Your task to perform on an android device: turn on notifications settings in the gmail app Image 0: 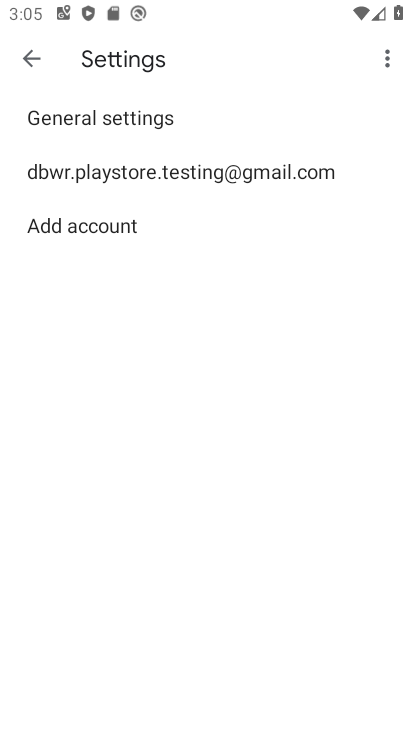
Step 0: press home button
Your task to perform on an android device: turn on notifications settings in the gmail app Image 1: 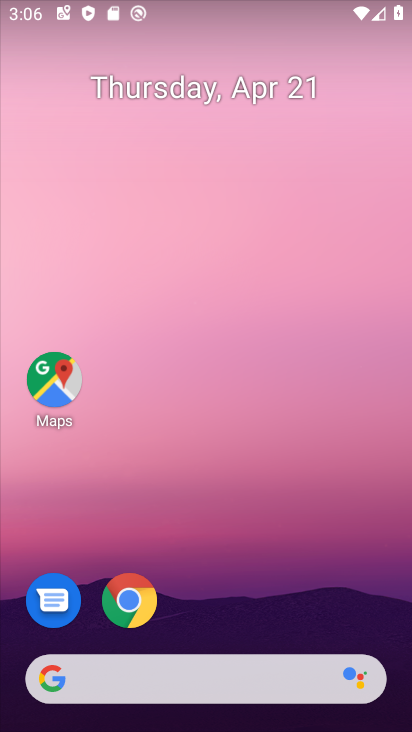
Step 1: drag from (210, 580) to (271, 0)
Your task to perform on an android device: turn on notifications settings in the gmail app Image 2: 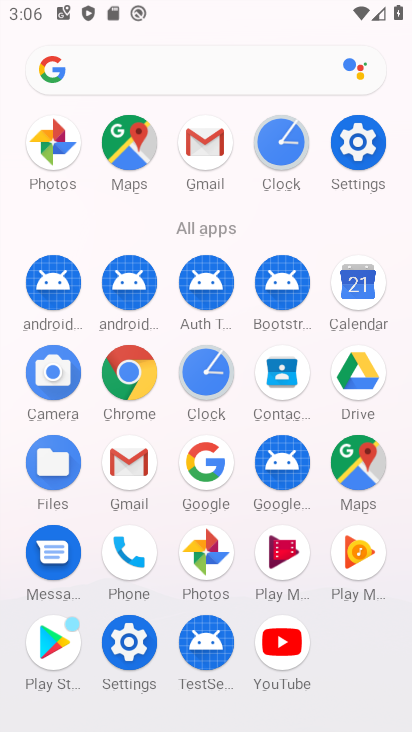
Step 2: click (207, 140)
Your task to perform on an android device: turn on notifications settings in the gmail app Image 3: 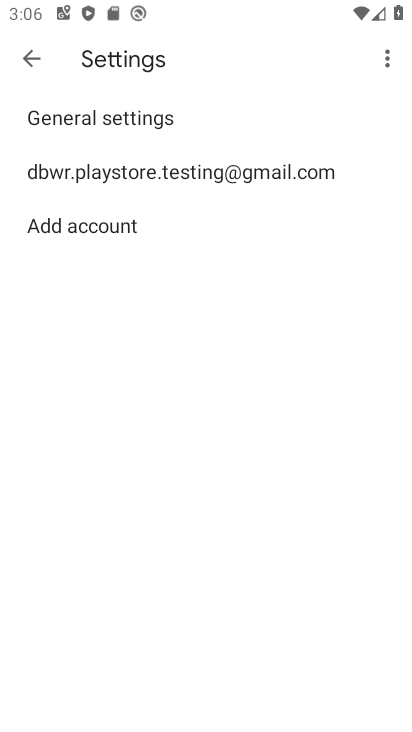
Step 3: click (225, 170)
Your task to perform on an android device: turn on notifications settings in the gmail app Image 4: 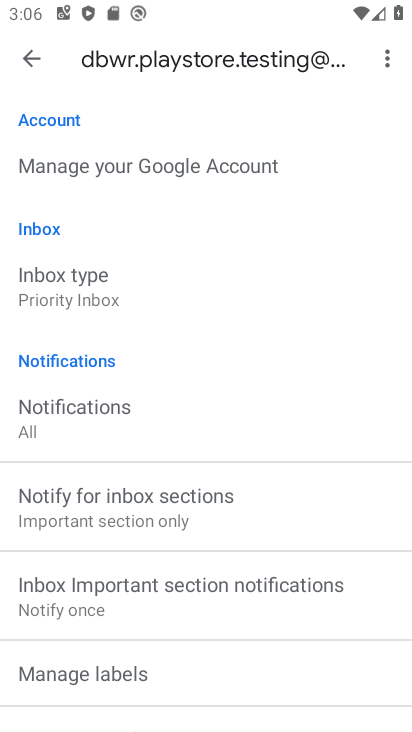
Step 4: drag from (172, 388) to (259, 258)
Your task to perform on an android device: turn on notifications settings in the gmail app Image 5: 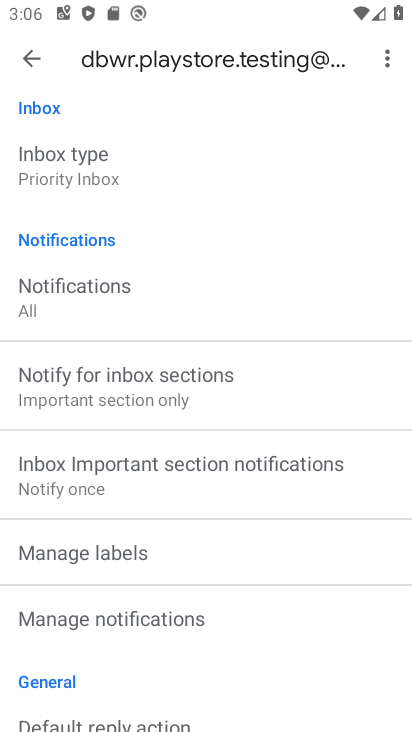
Step 5: click (149, 617)
Your task to perform on an android device: turn on notifications settings in the gmail app Image 6: 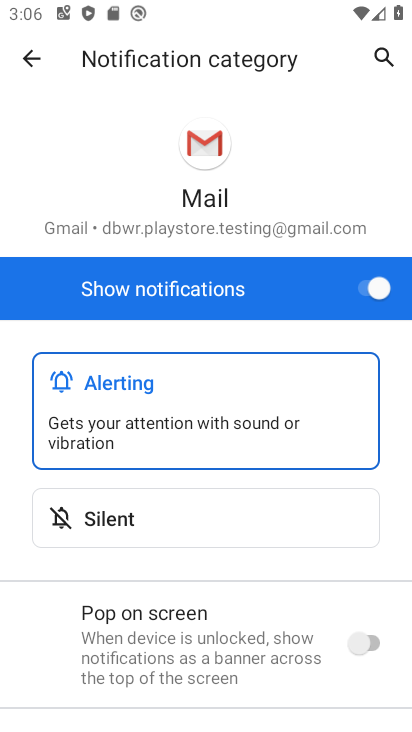
Step 6: task complete